Your task to perform on an android device: Empty the shopping cart on ebay. Add dell alienware to the cart on ebay, then select checkout. Image 0: 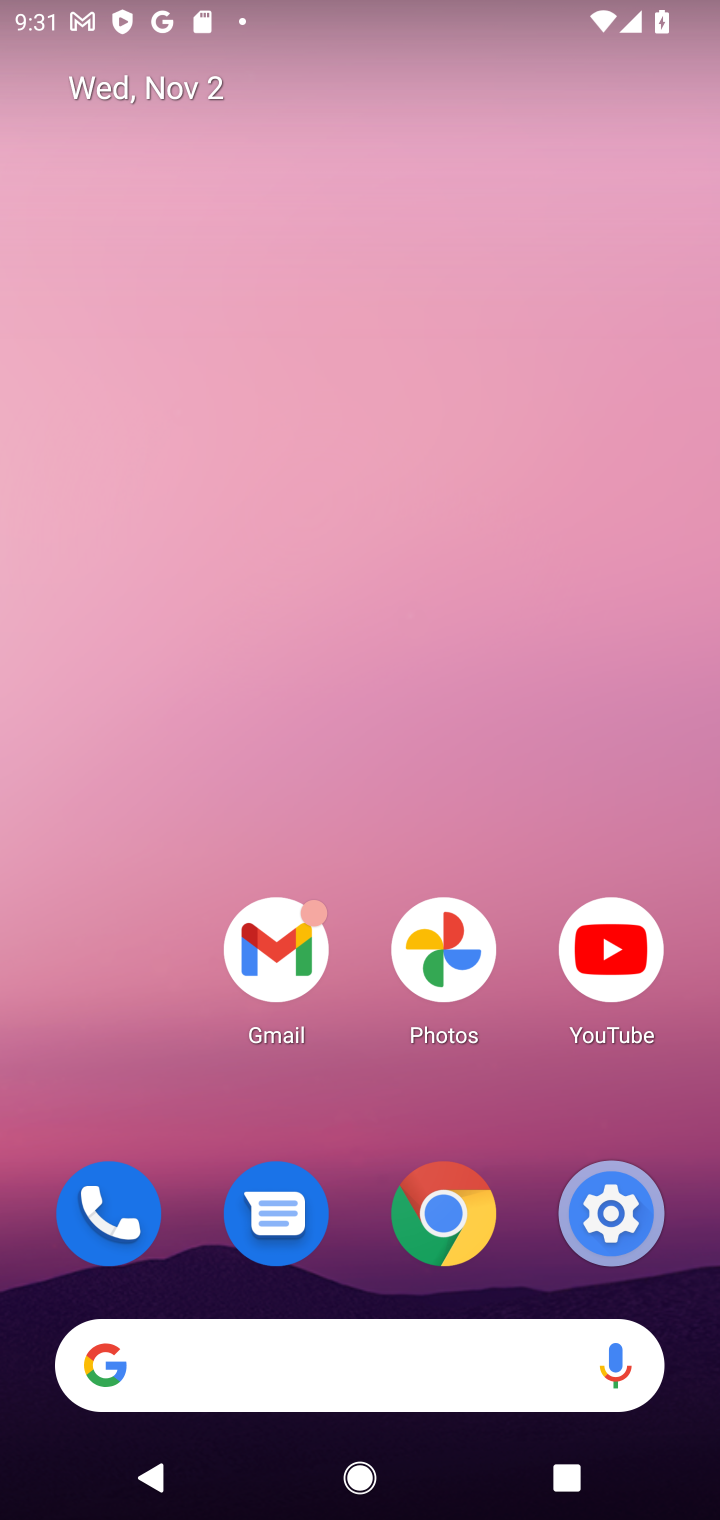
Step 0: click (452, 1234)
Your task to perform on an android device: Empty the shopping cart on ebay. Add dell alienware to the cart on ebay, then select checkout. Image 1: 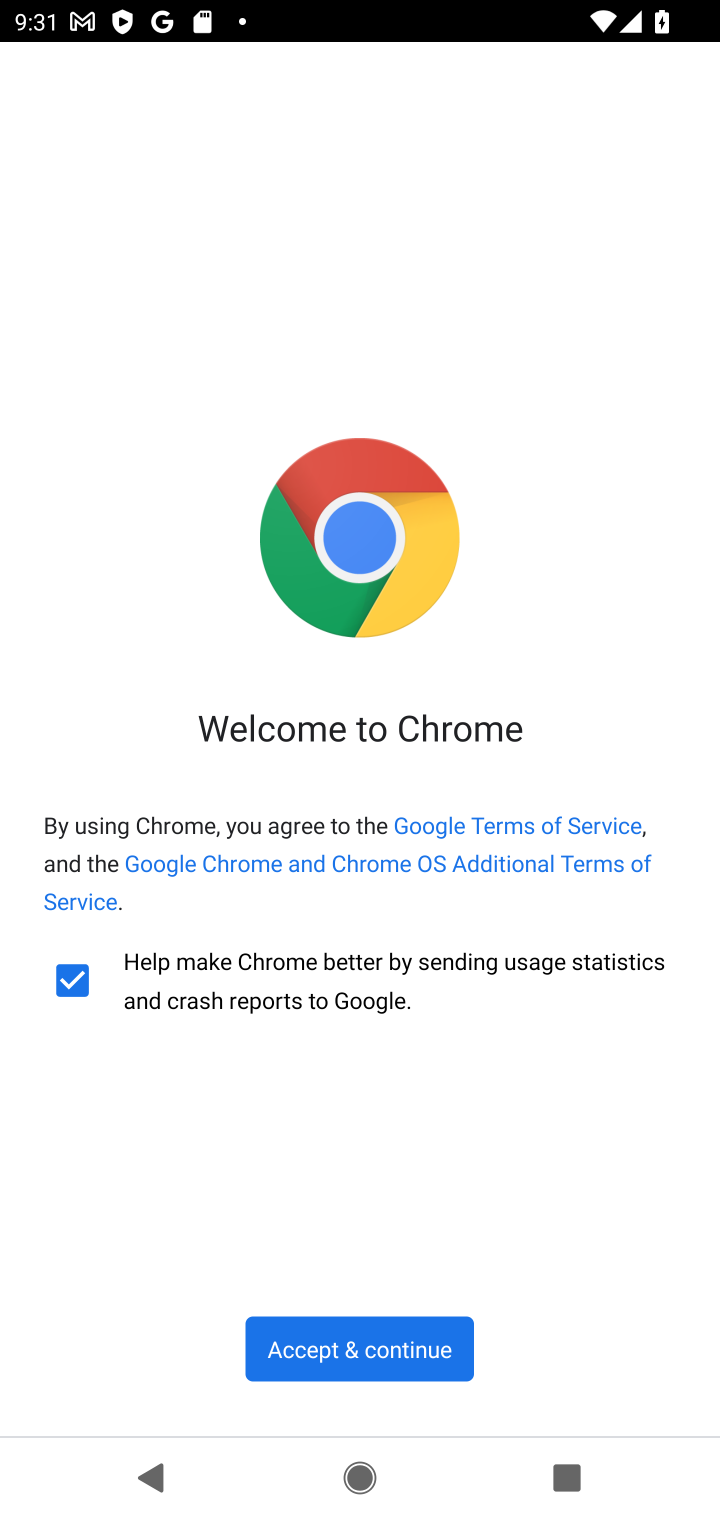
Step 1: click (358, 1316)
Your task to perform on an android device: Empty the shopping cart on ebay. Add dell alienware to the cart on ebay, then select checkout. Image 2: 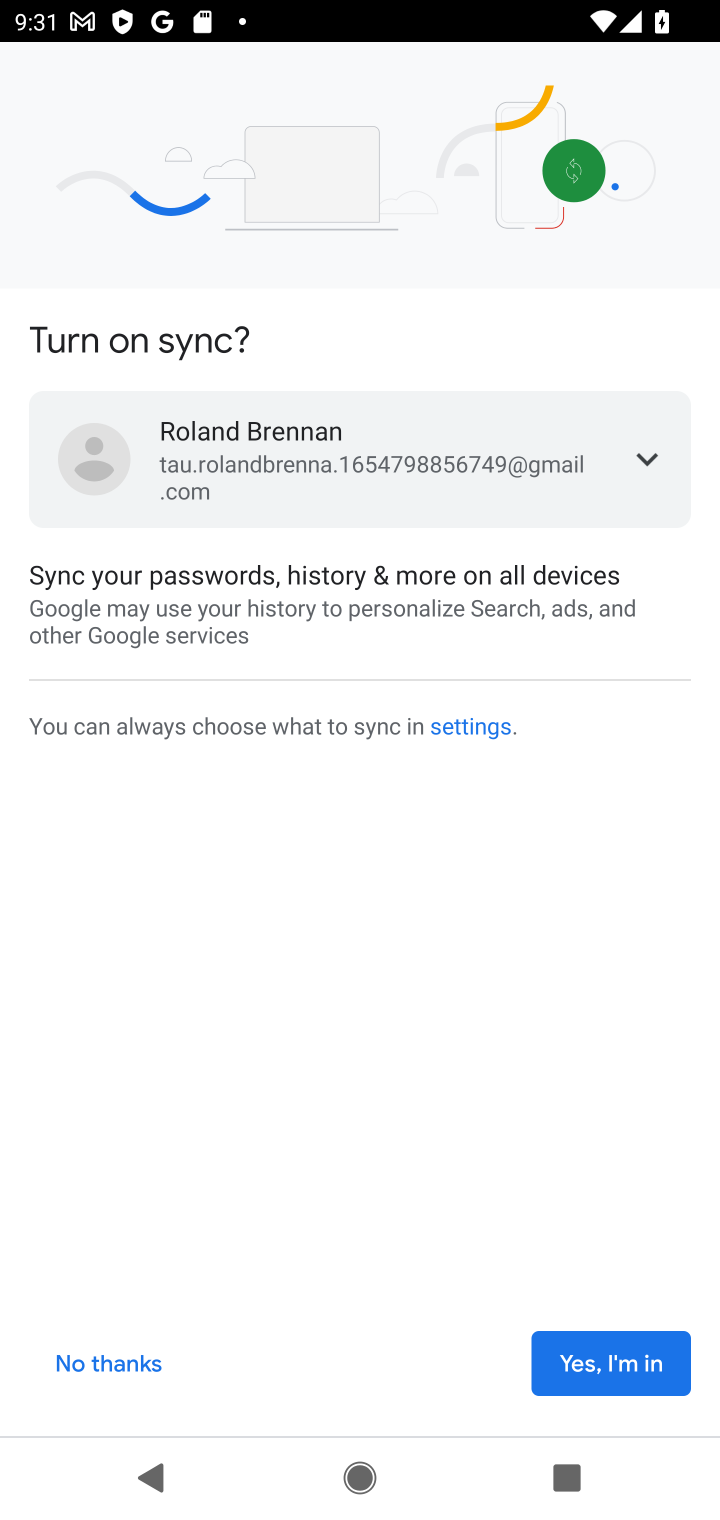
Step 2: click (541, 1362)
Your task to perform on an android device: Empty the shopping cart on ebay. Add dell alienware to the cart on ebay, then select checkout. Image 3: 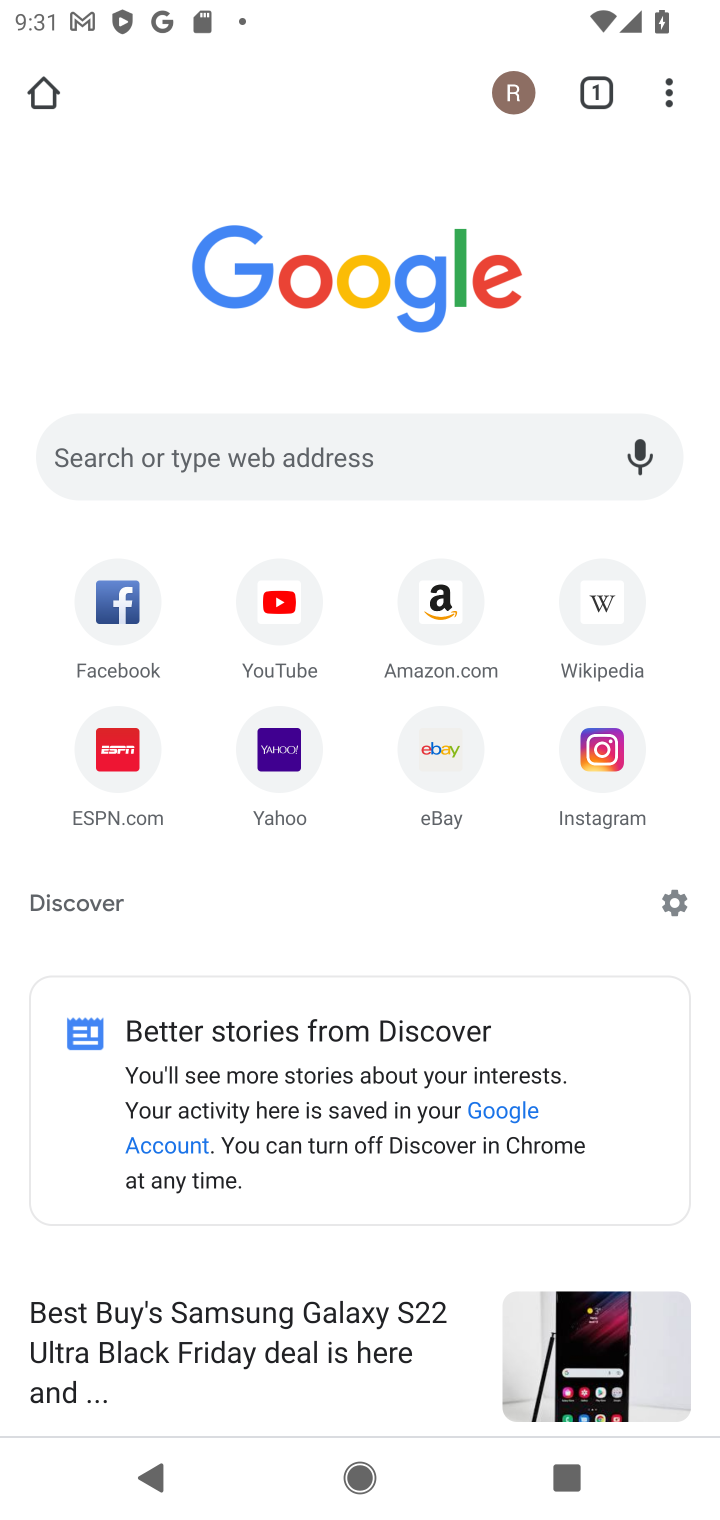
Step 3: click (189, 456)
Your task to perform on an android device: Empty the shopping cart on ebay. Add dell alienware to the cart on ebay, then select checkout. Image 4: 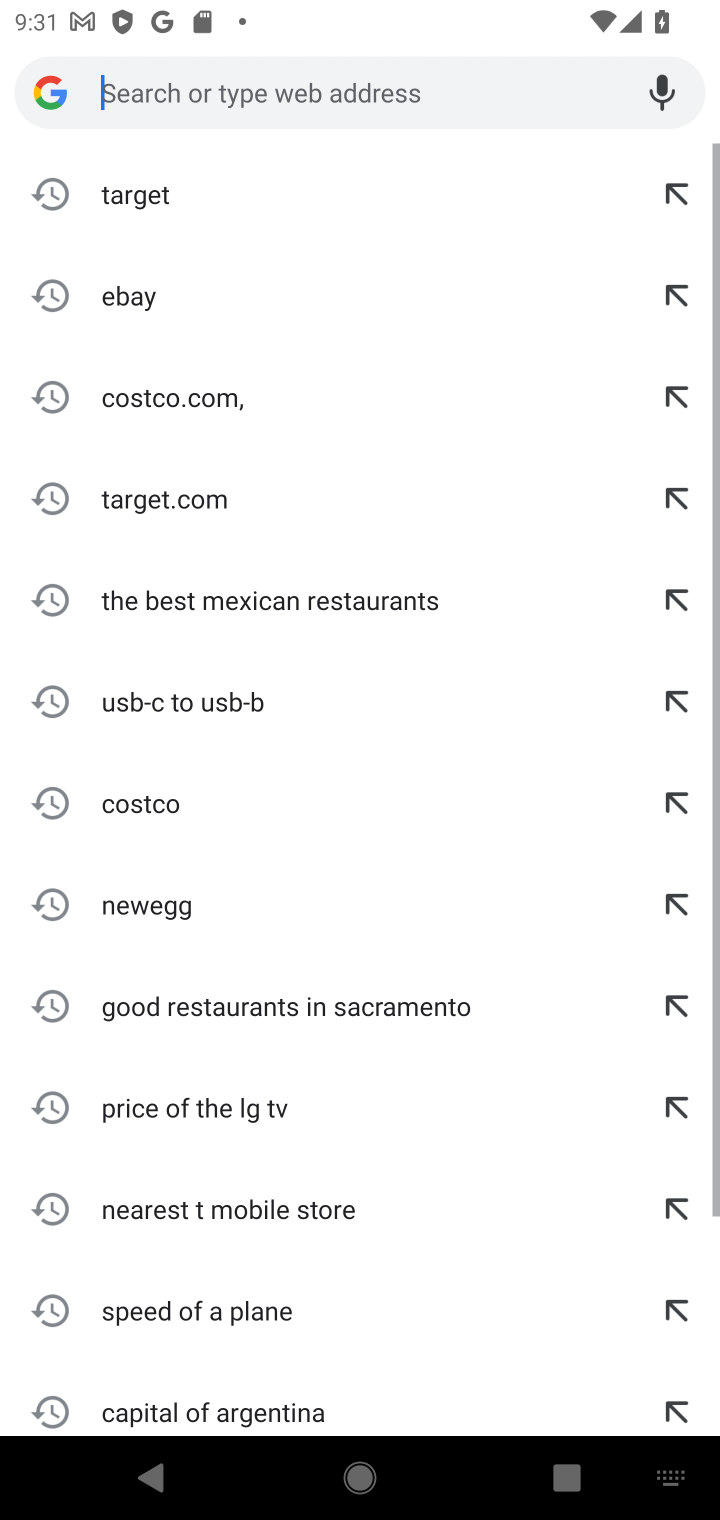
Step 4: click (133, 306)
Your task to perform on an android device: Empty the shopping cart on ebay. Add dell alienware to the cart on ebay, then select checkout. Image 5: 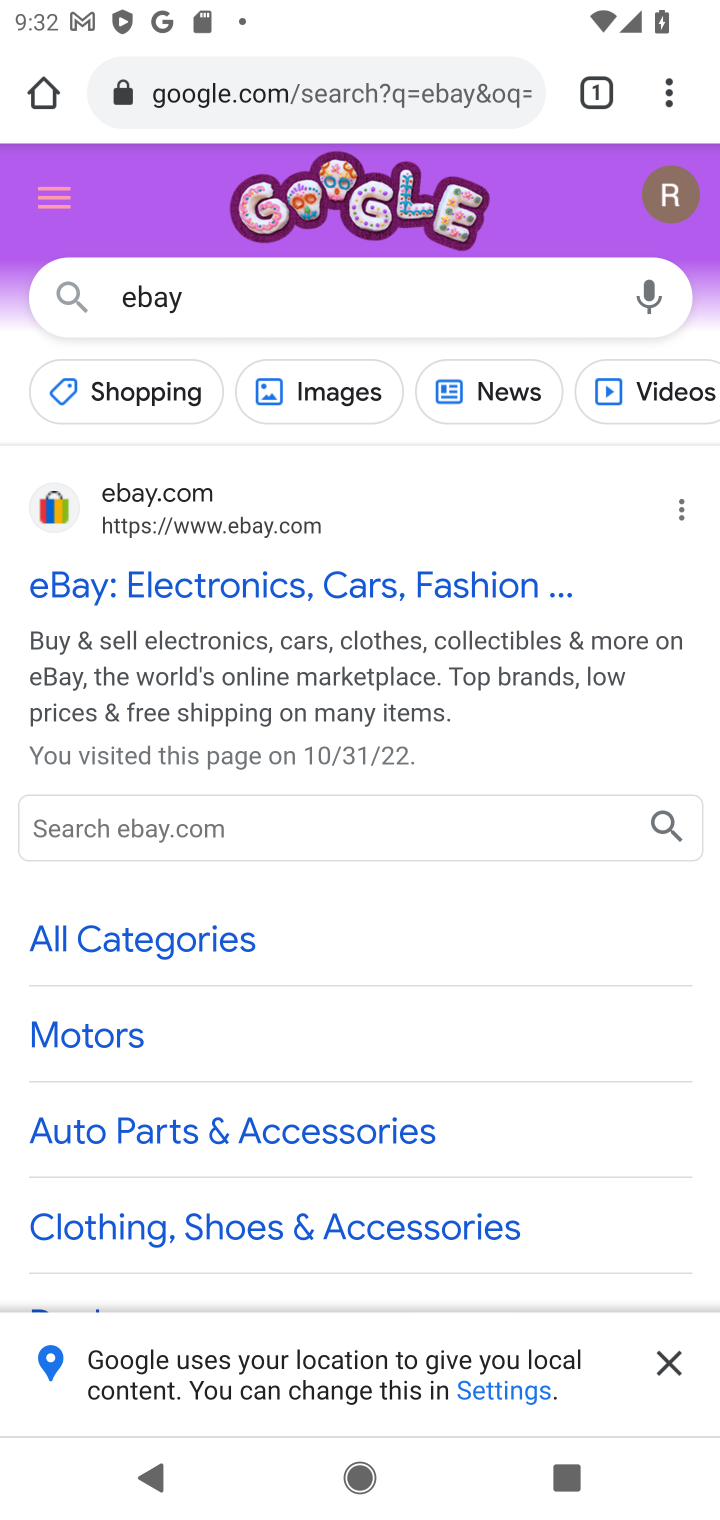
Step 5: click (668, 1372)
Your task to perform on an android device: Empty the shopping cart on ebay. Add dell alienware to the cart on ebay, then select checkout. Image 6: 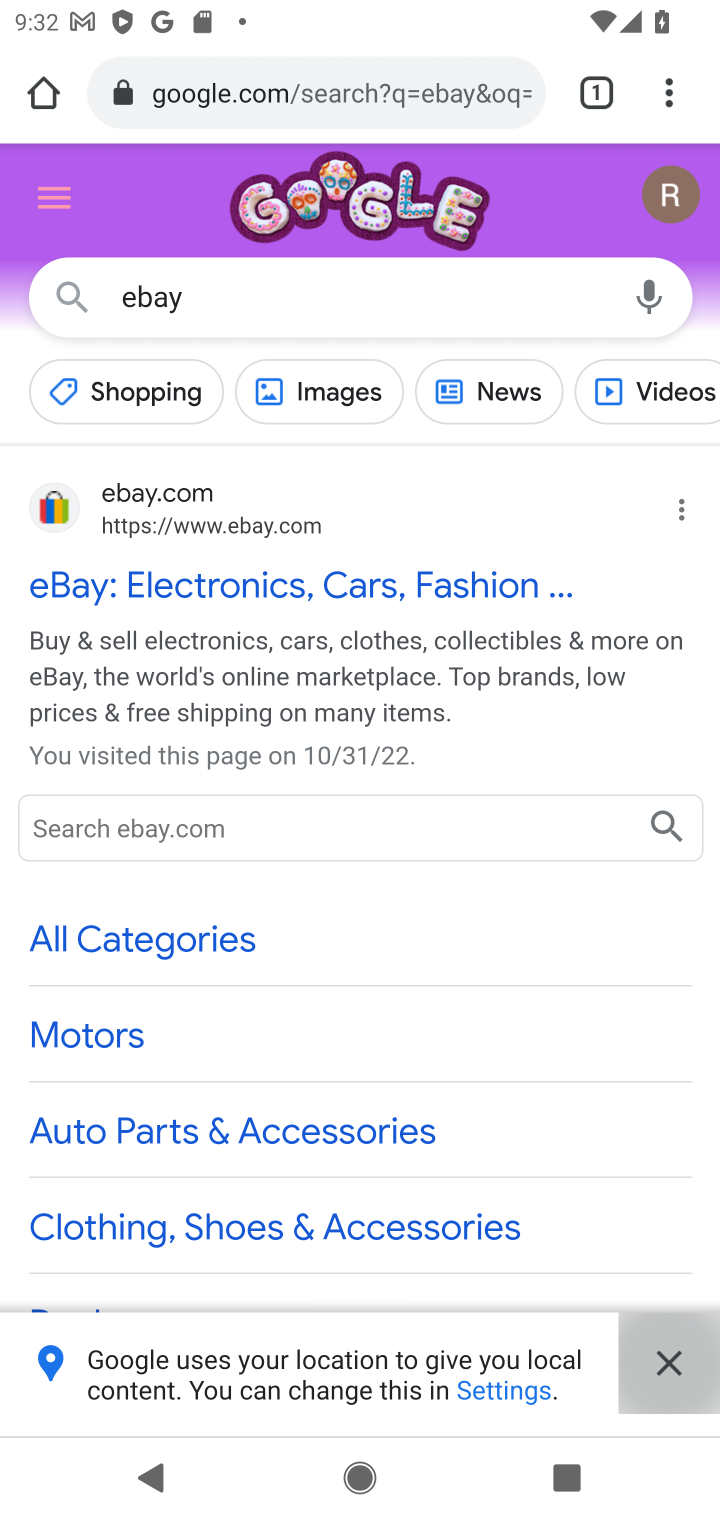
Step 6: click (117, 615)
Your task to perform on an android device: Empty the shopping cart on ebay. Add dell alienware to the cart on ebay, then select checkout. Image 7: 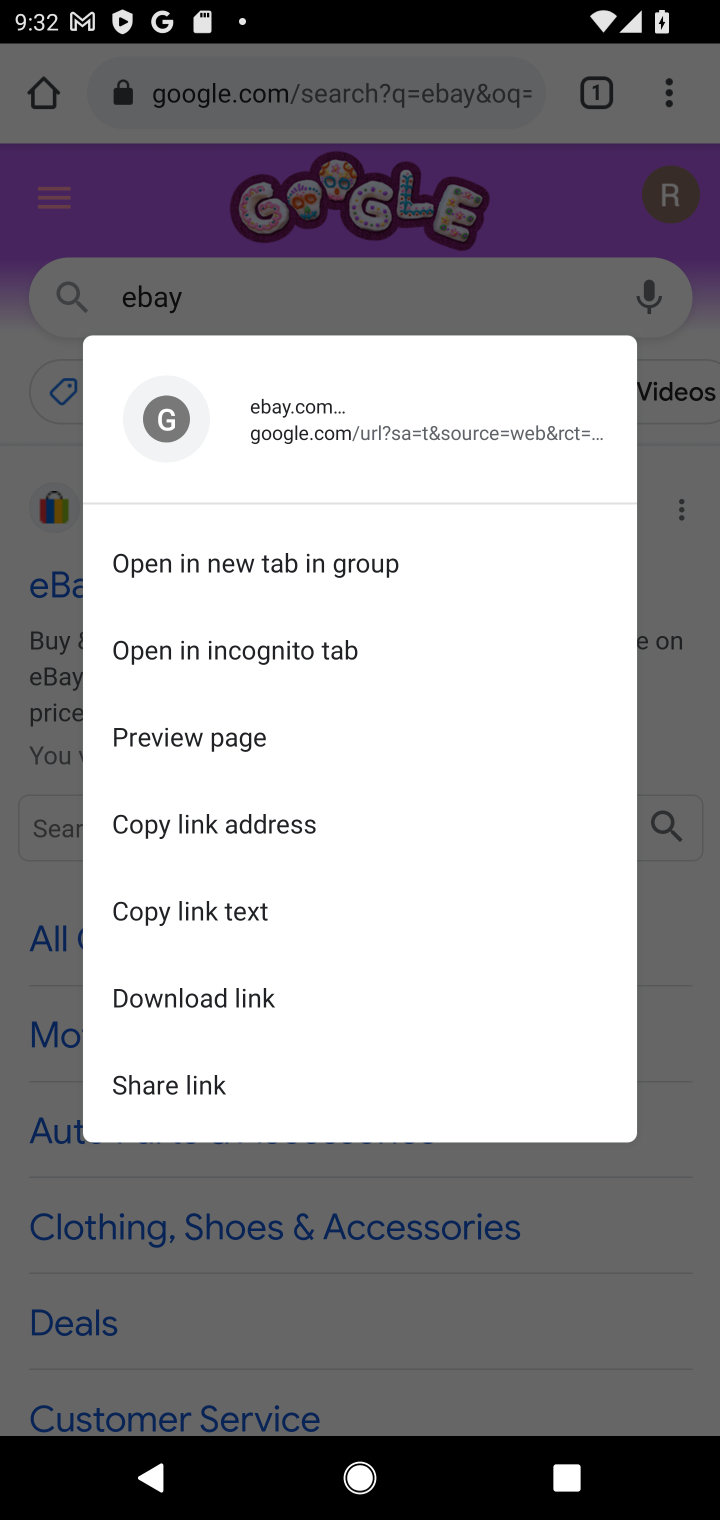
Step 7: click (662, 652)
Your task to perform on an android device: Empty the shopping cart on ebay. Add dell alienware to the cart on ebay, then select checkout. Image 8: 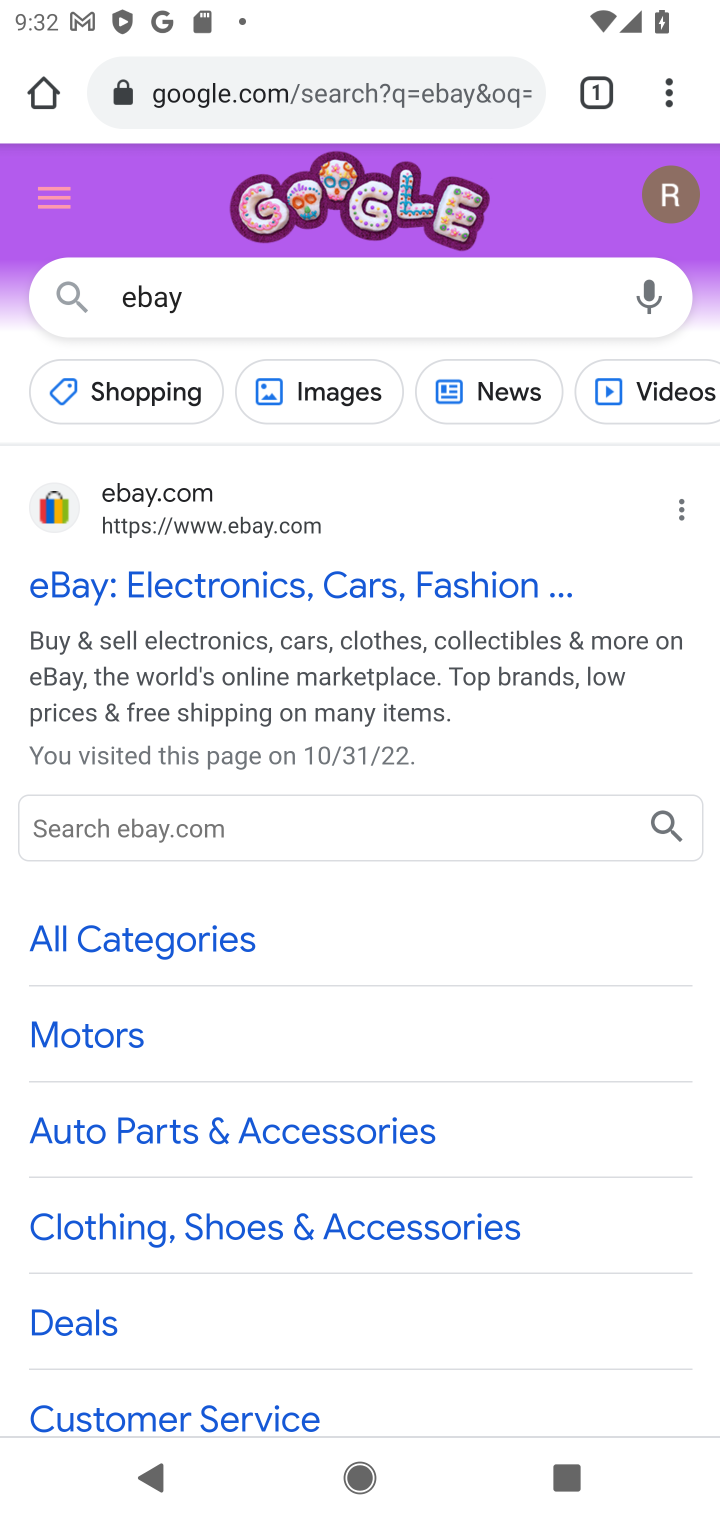
Step 8: click (465, 596)
Your task to perform on an android device: Empty the shopping cart on ebay. Add dell alienware to the cart on ebay, then select checkout. Image 9: 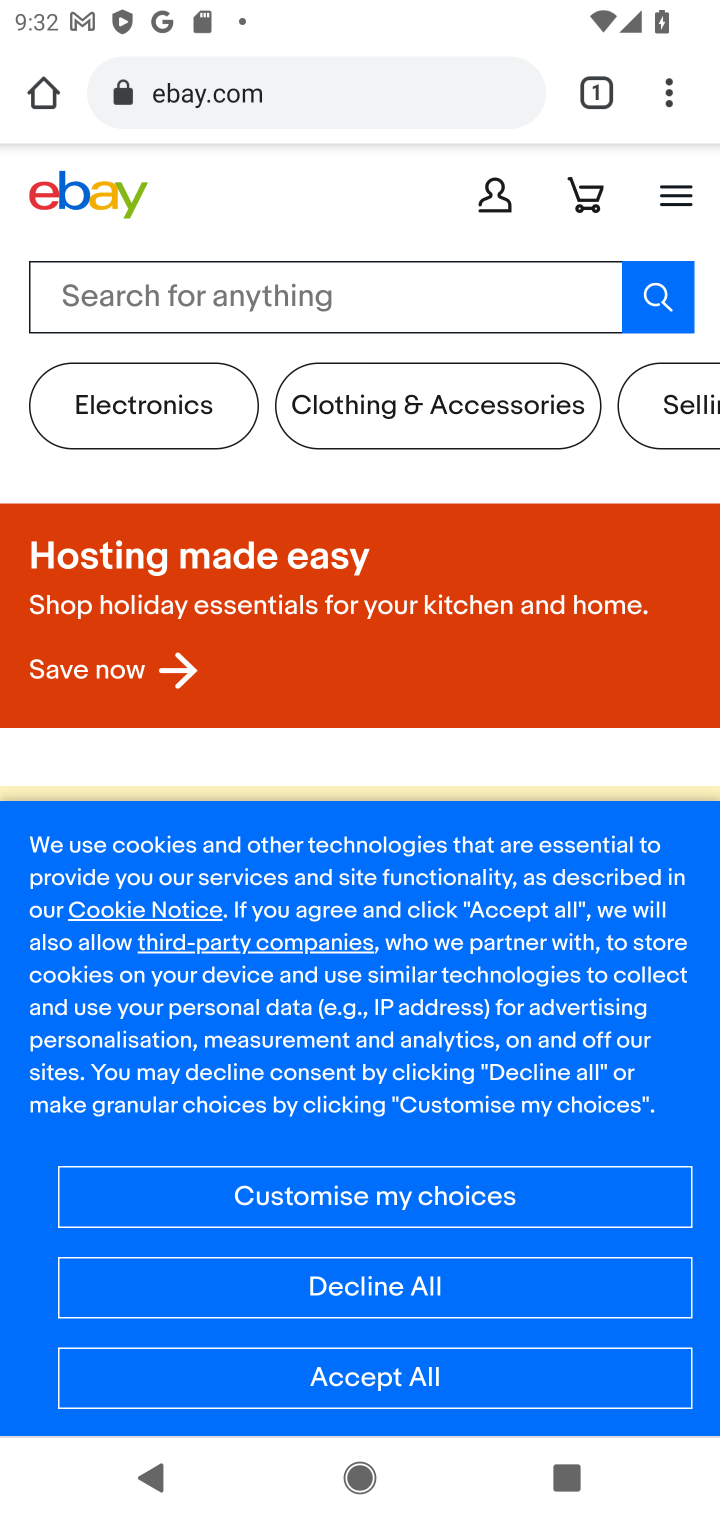
Step 9: click (494, 1385)
Your task to perform on an android device: Empty the shopping cart on ebay. Add dell alienware to the cart on ebay, then select checkout. Image 10: 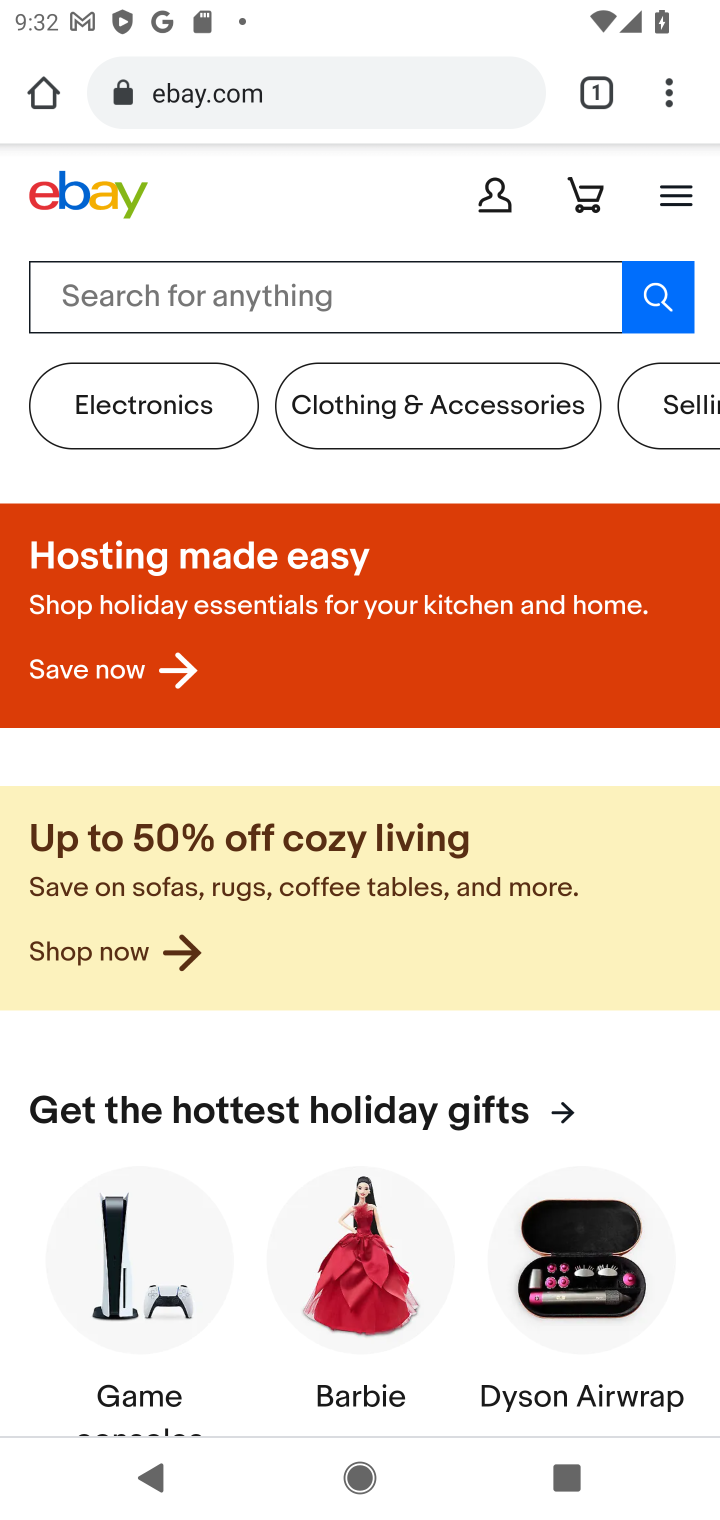
Step 10: click (207, 315)
Your task to perform on an android device: Empty the shopping cart on ebay. Add dell alienware to the cart on ebay, then select checkout. Image 11: 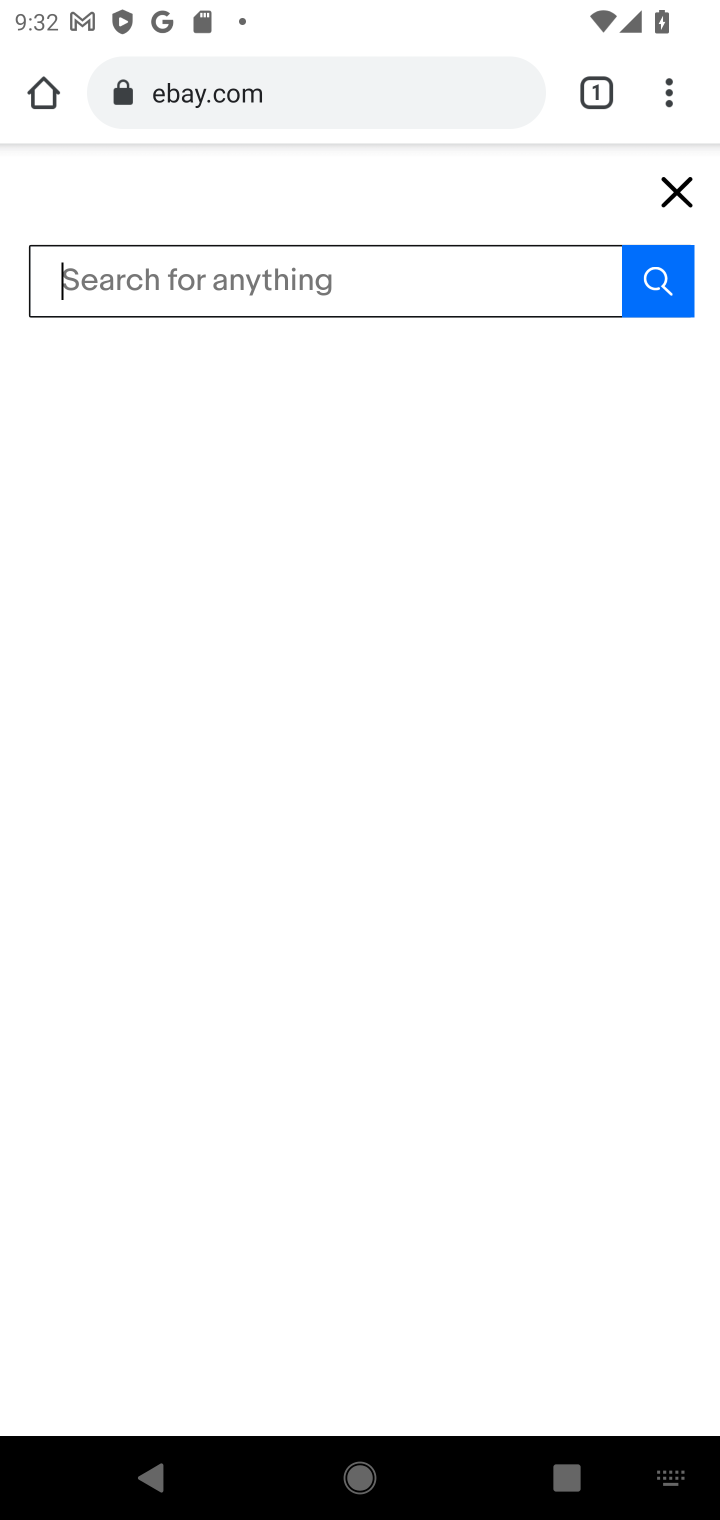
Step 11: type "dell alienware"
Your task to perform on an android device: Empty the shopping cart on ebay. Add dell alienware to the cart on ebay, then select checkout. Image 12: 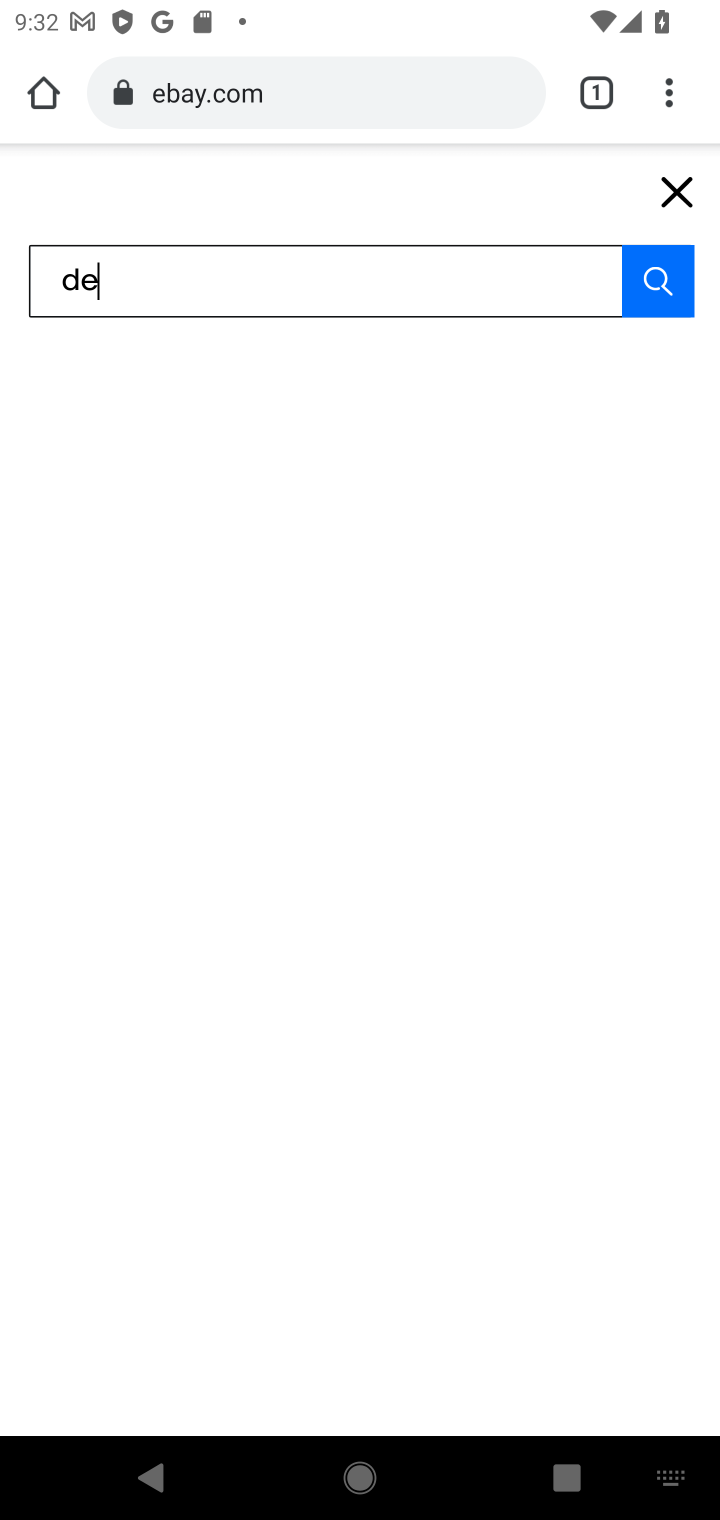
Step 12: type ""
Your task to perform on an android device: Empty the shopping cart on ebay. Add dell alienware to the cart on ebay, then select checkout. Image 13: 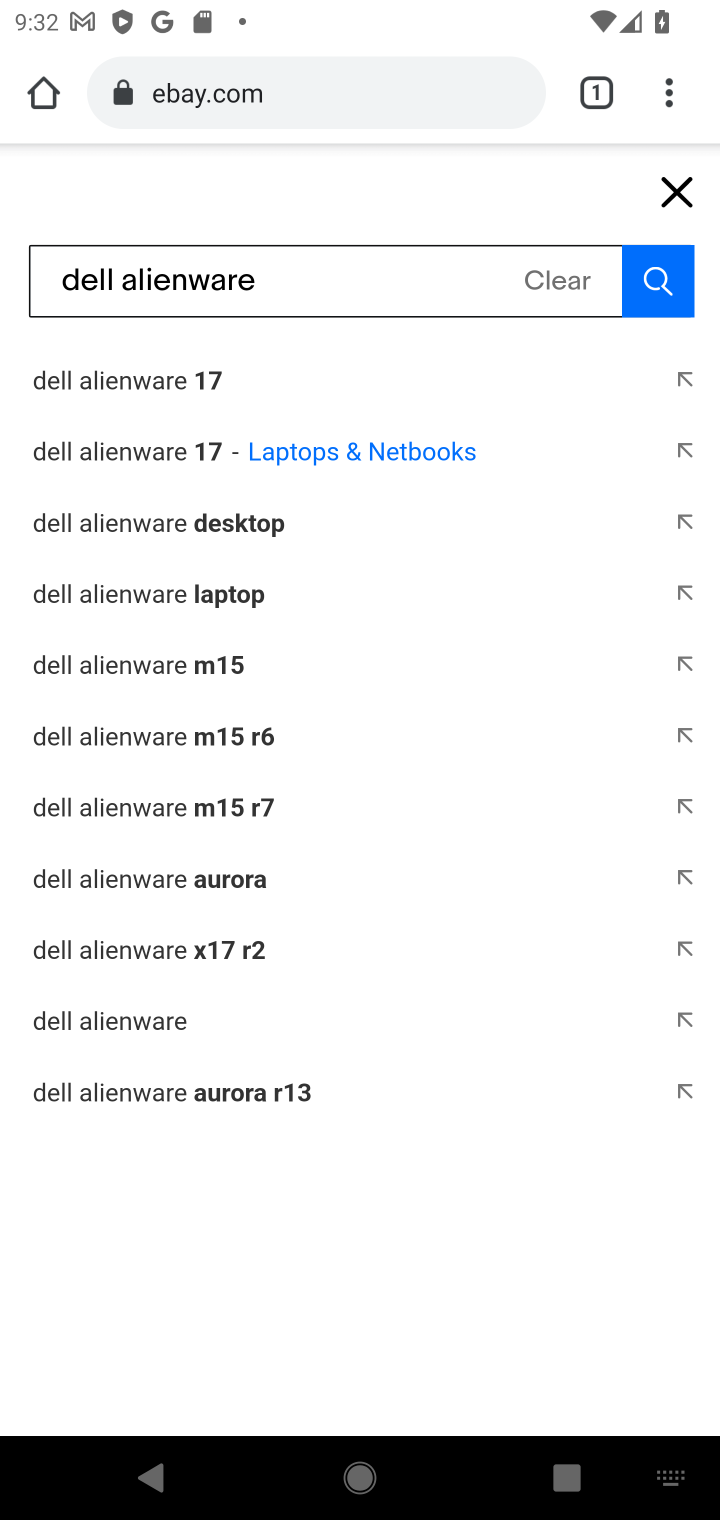
Step 13: click (678, 270)
Your task to perform on an android device: Empty the shopping cart on ebay. Add dell alienware to the cart on ebay, then select checkout. Image 14: 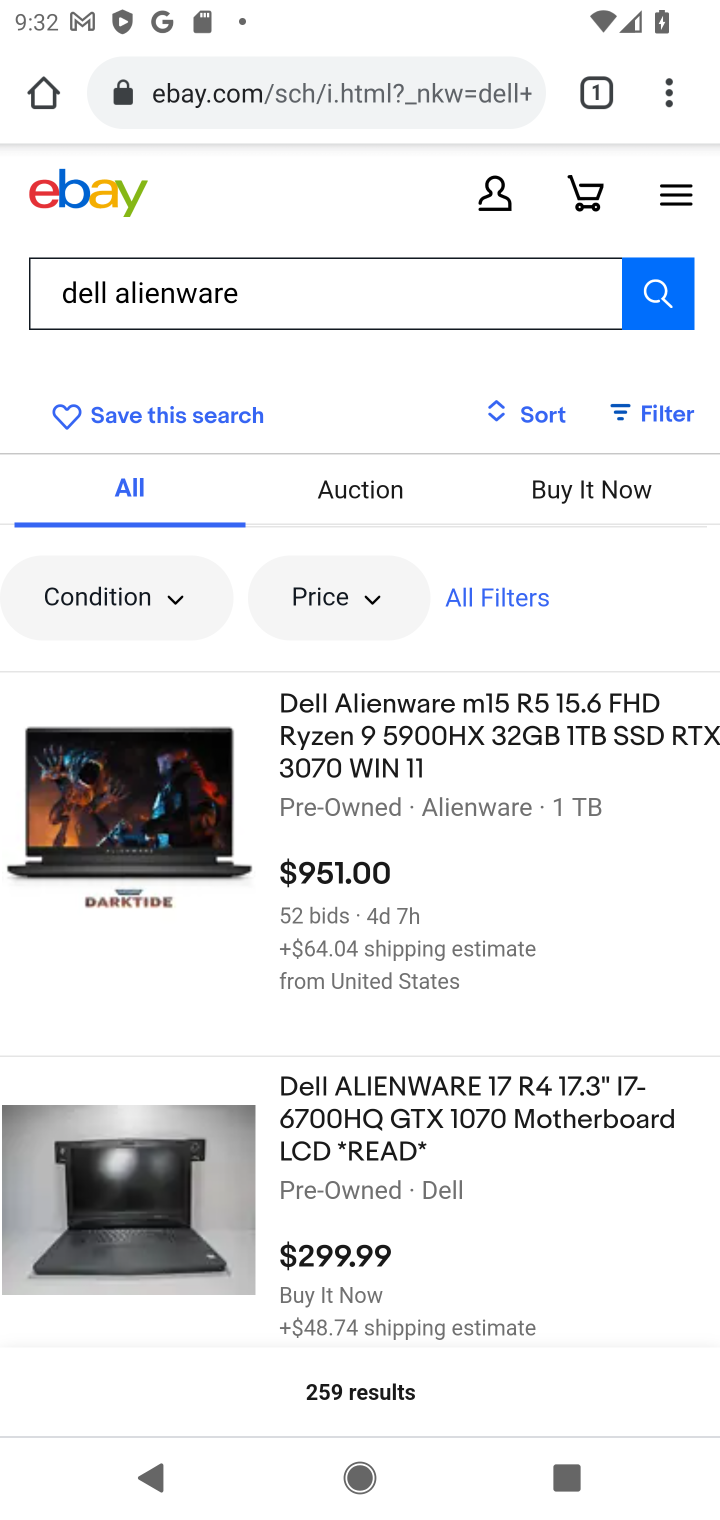
Step 14: click (659, 300)
Your task to perform on an android device: Empty the shopping cart on ebay. Add dell alienware to the cart on ebay, then select checkout. Image 15: 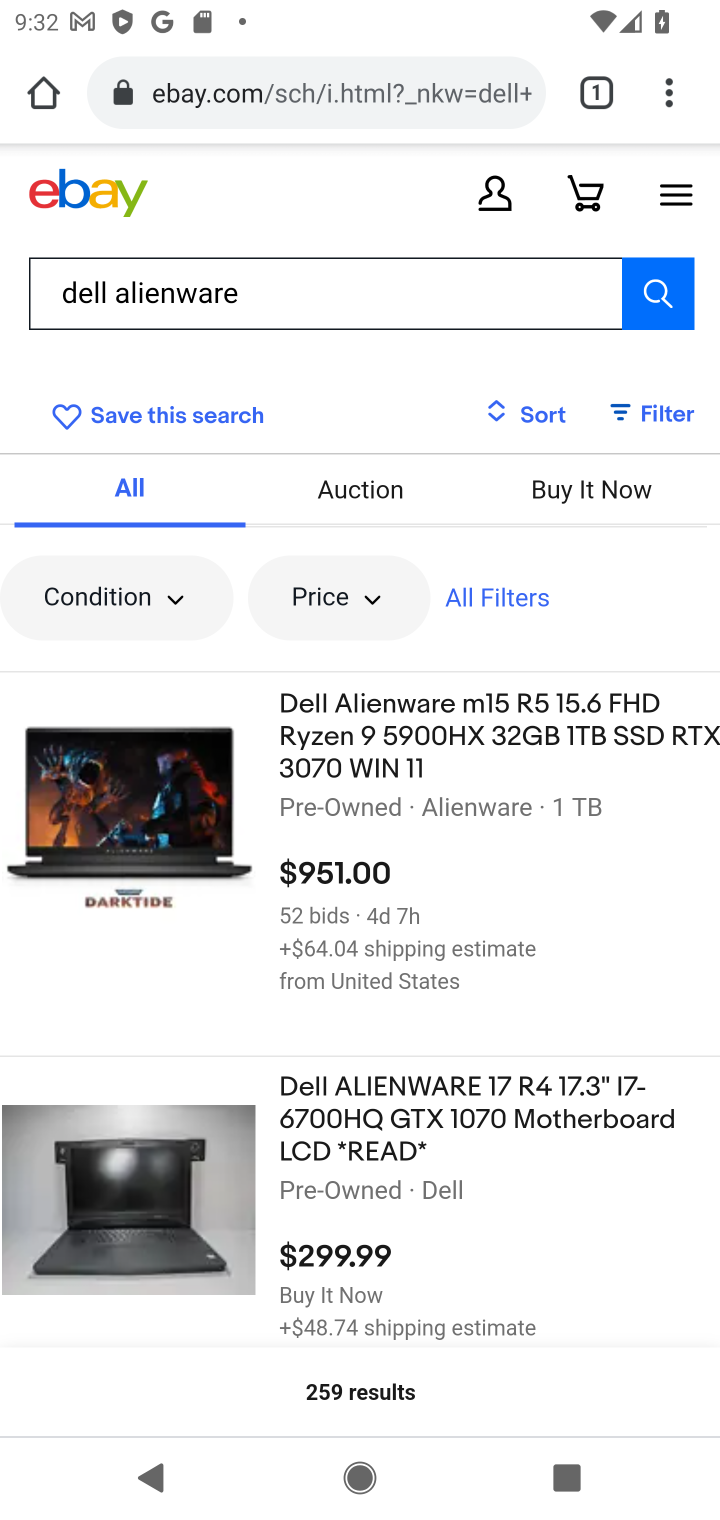
Step 15: click (458, 690)
Your task to perform on an android device: Empty the shopping cart on ebay. Add dell alienware to the cart on ebay, then select checkout. Image 16: 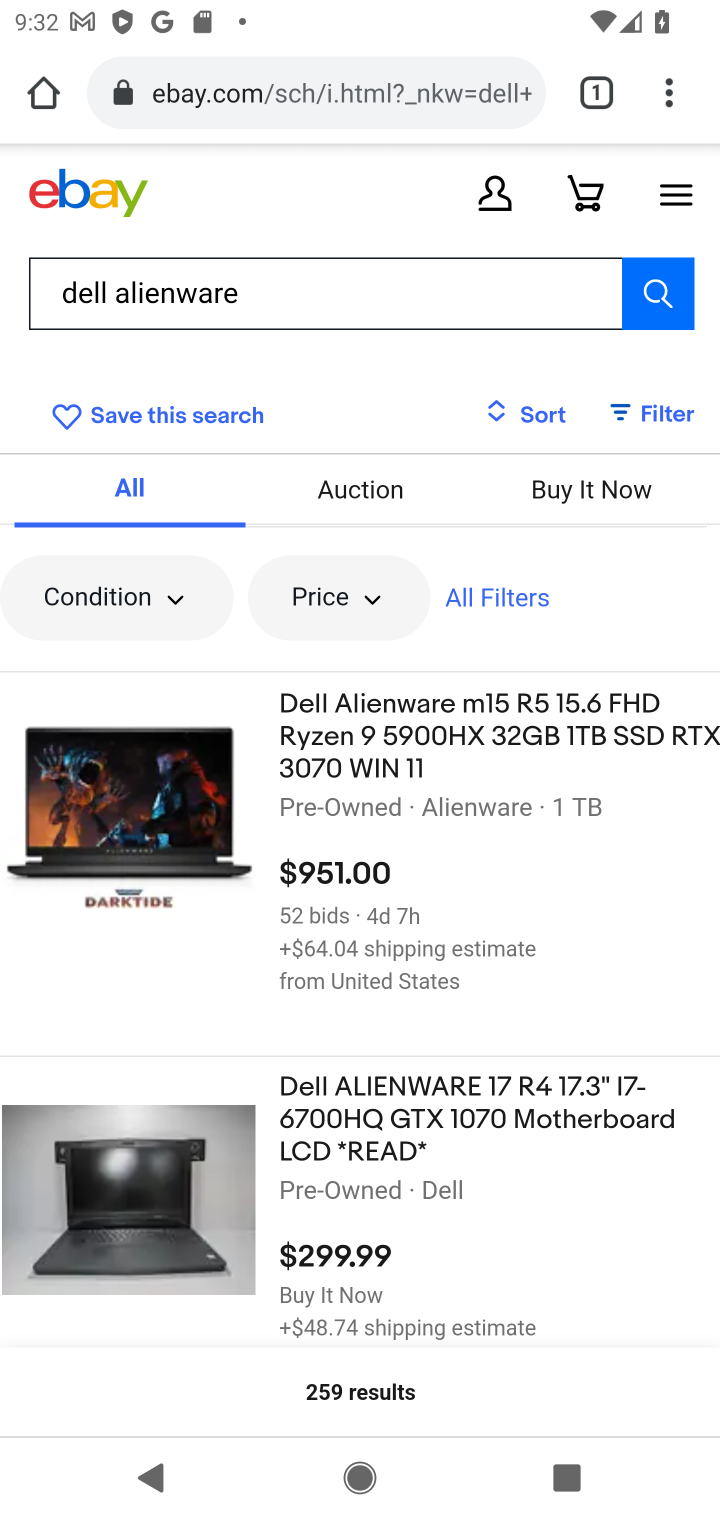
Step 16: click (423, 752)
Your task to perform on an android device: Empty the shopping cart on ebay. Add dell alienware to the cart on ebay, then select checkout. Image 17: 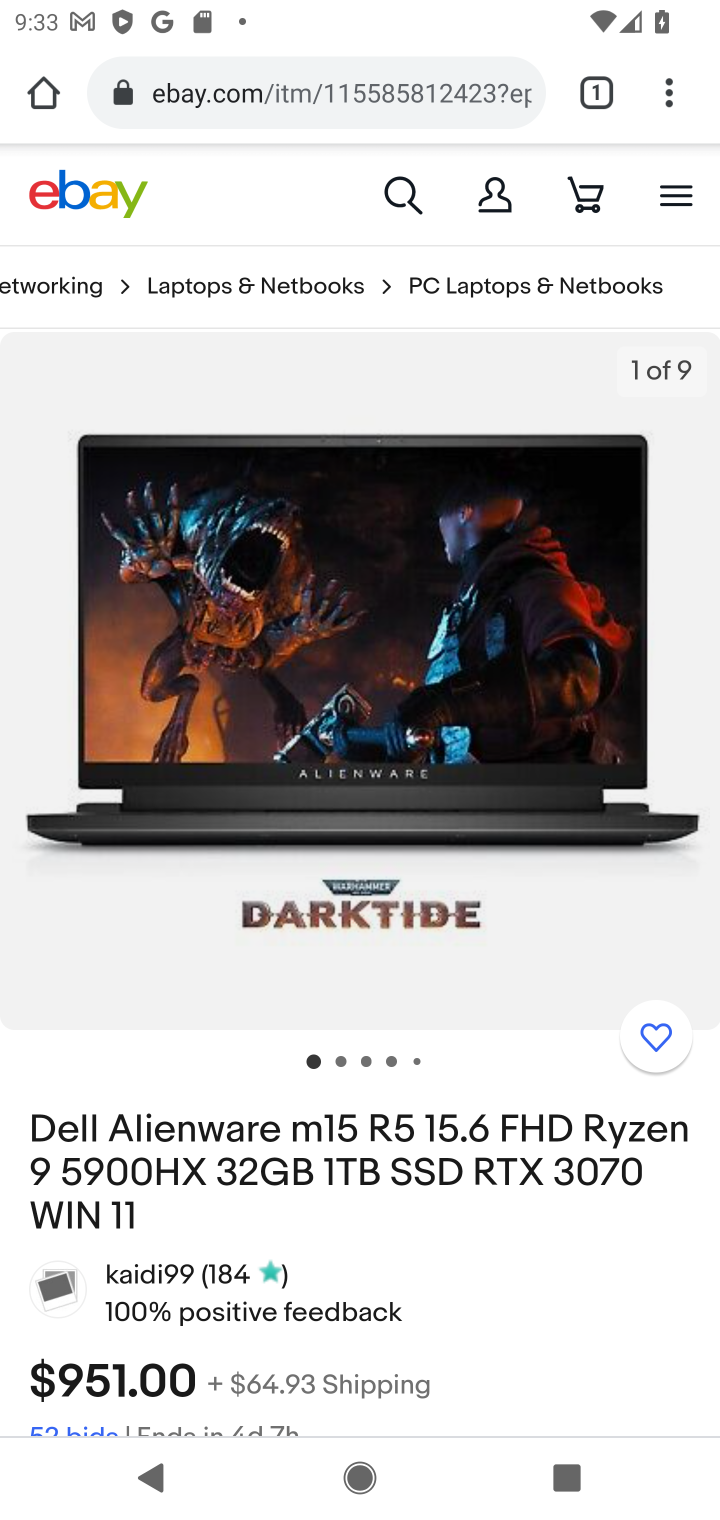
Step 17: drag from (477, 906) to (523, 344)
Your task to perform on an android device: Empty the shopping cart on ebay. Add dell alienware to the cart on ebay, then select checkout. Image 18: 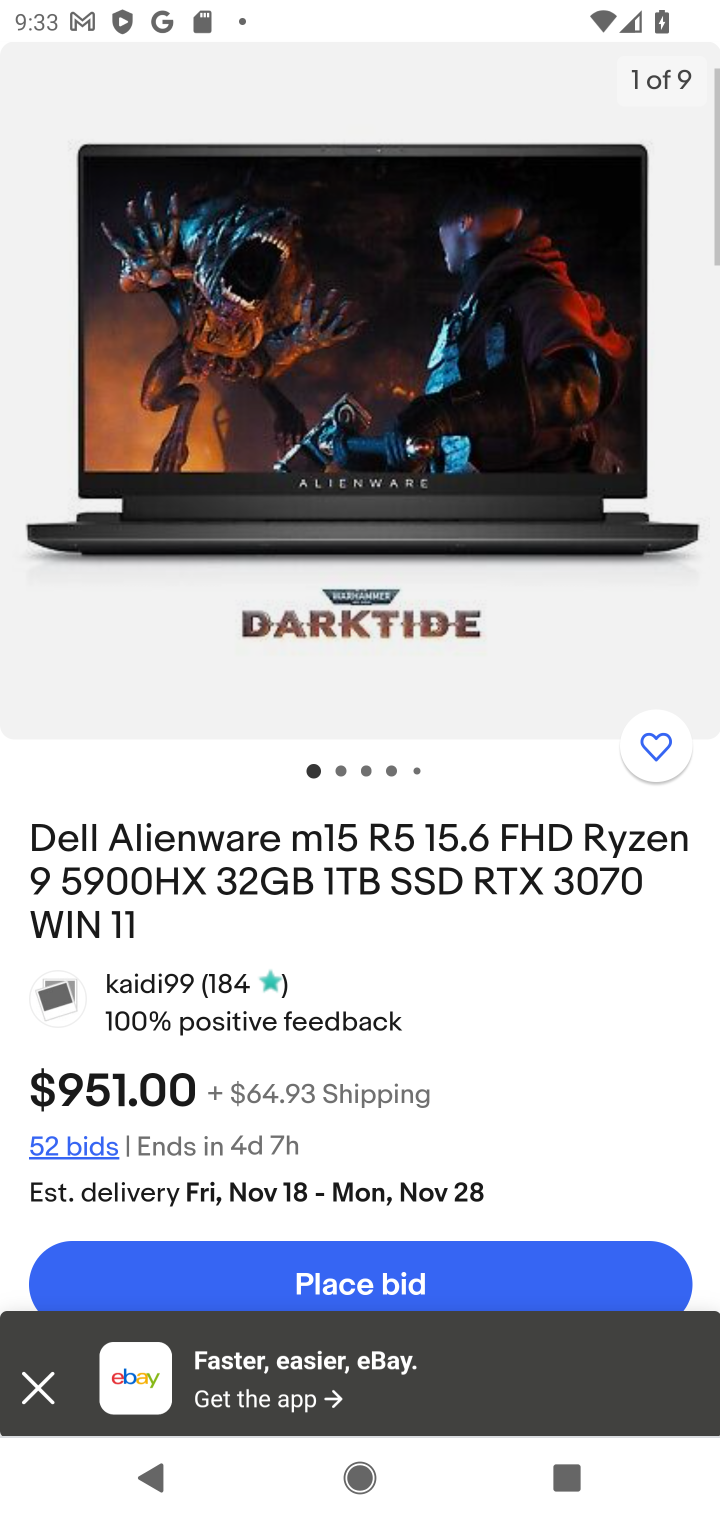
Step 18: drag from (446, 826) to (474, 647)
Your task to perform on an android device: Empty the shopping cart on ebay. Add dell alienware to the cart on ebay, then select checkout. Image 19: 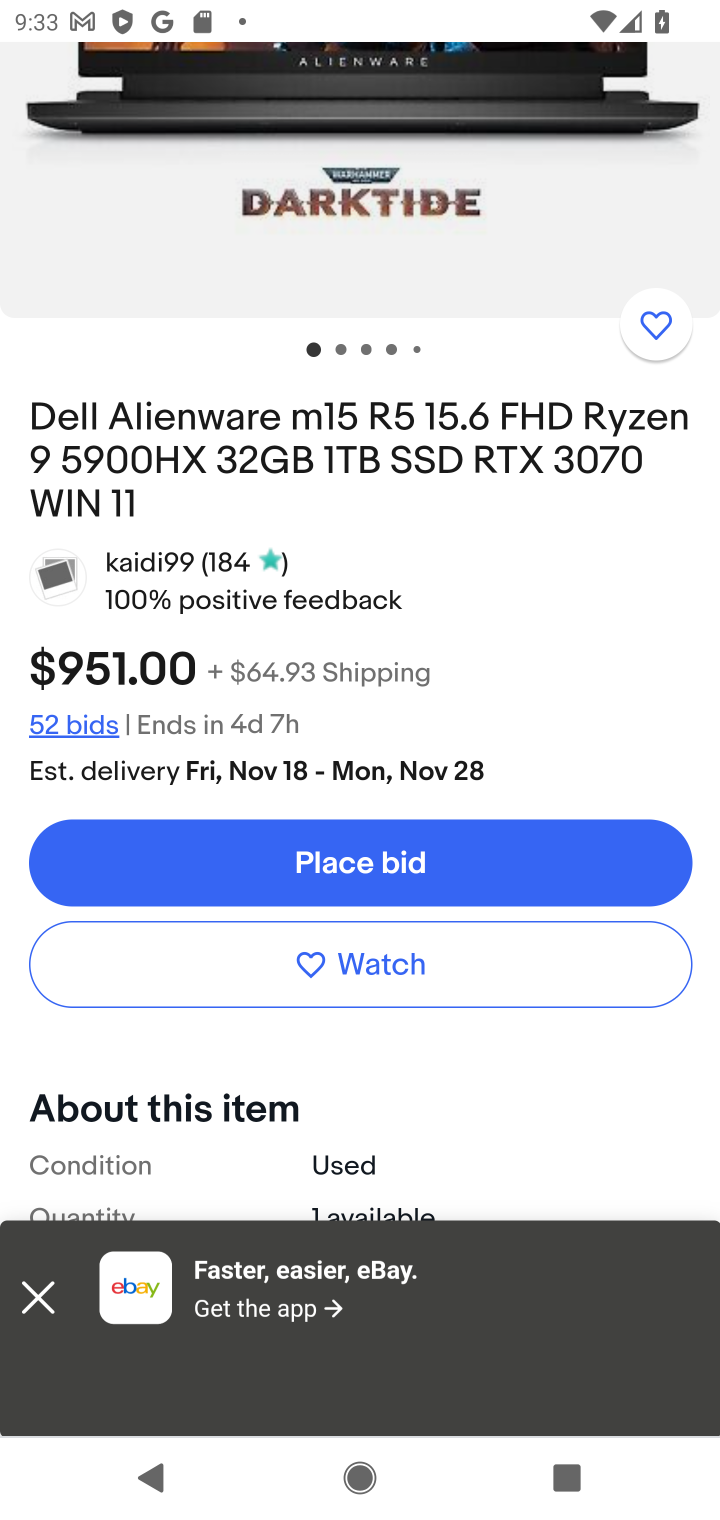
Step 19: click (25, 1423)
Your task to perform on an android device: Empty the shopping cart on ebay. Add dell alienware to the cart on ebay, then select checkout. Image 20: 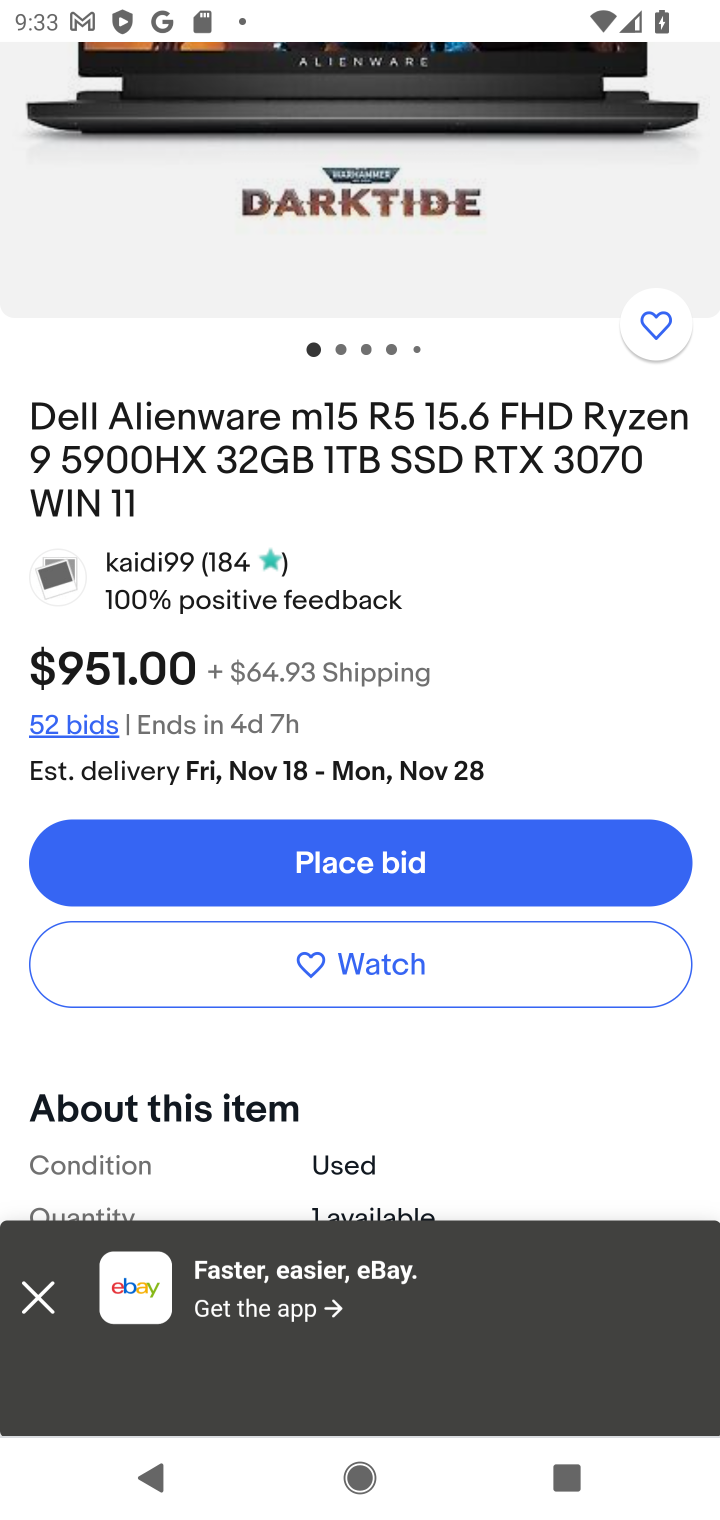
Step 20: click (36, 1323)
Your task to perform on an android device: Empty the shopping cart on ebay. Add dell alienware to the cart on ebay, then select checkout. Image 21: 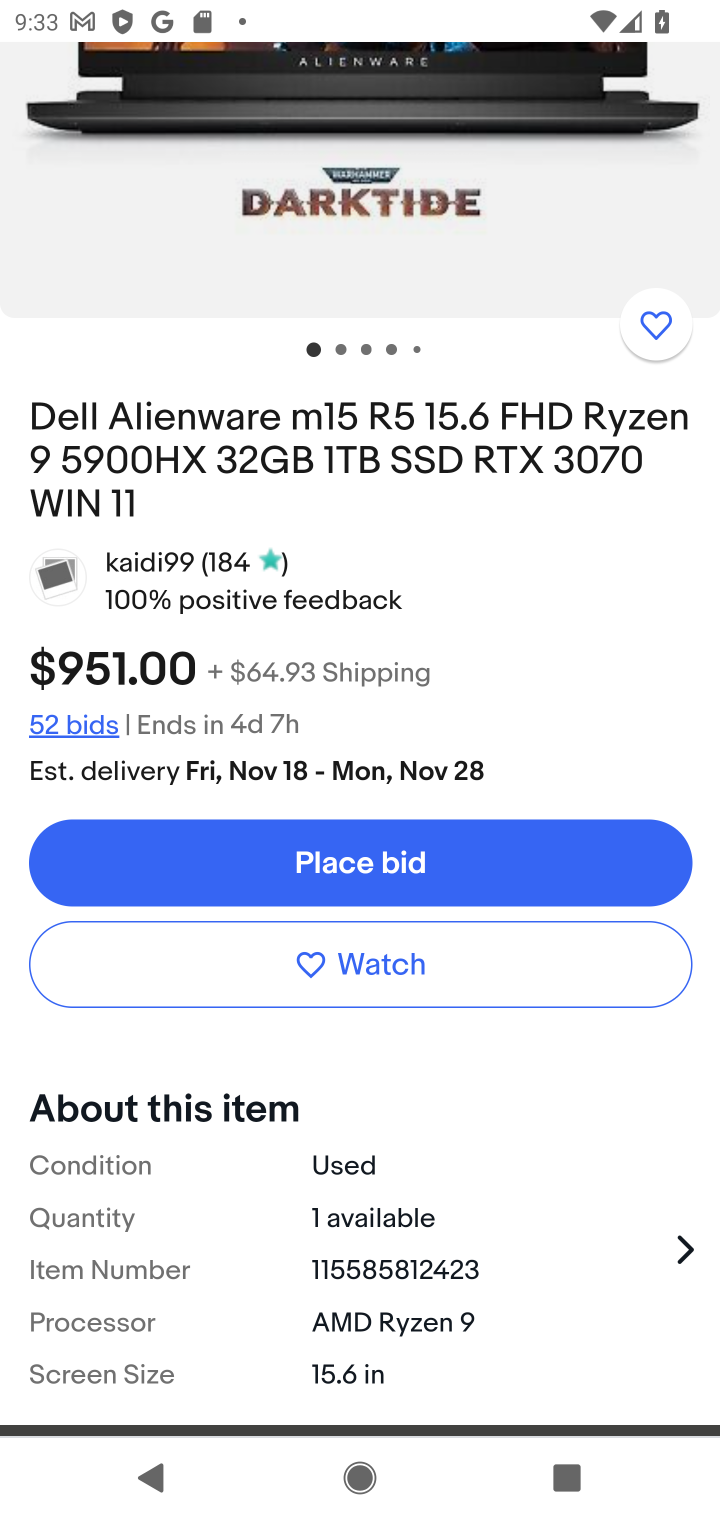
Step 21: press back button
Your task to perform on an android device: Empty the shopping cart on ebay. Add dell alienware to the cart on ebay, then select checkout. Image 22: 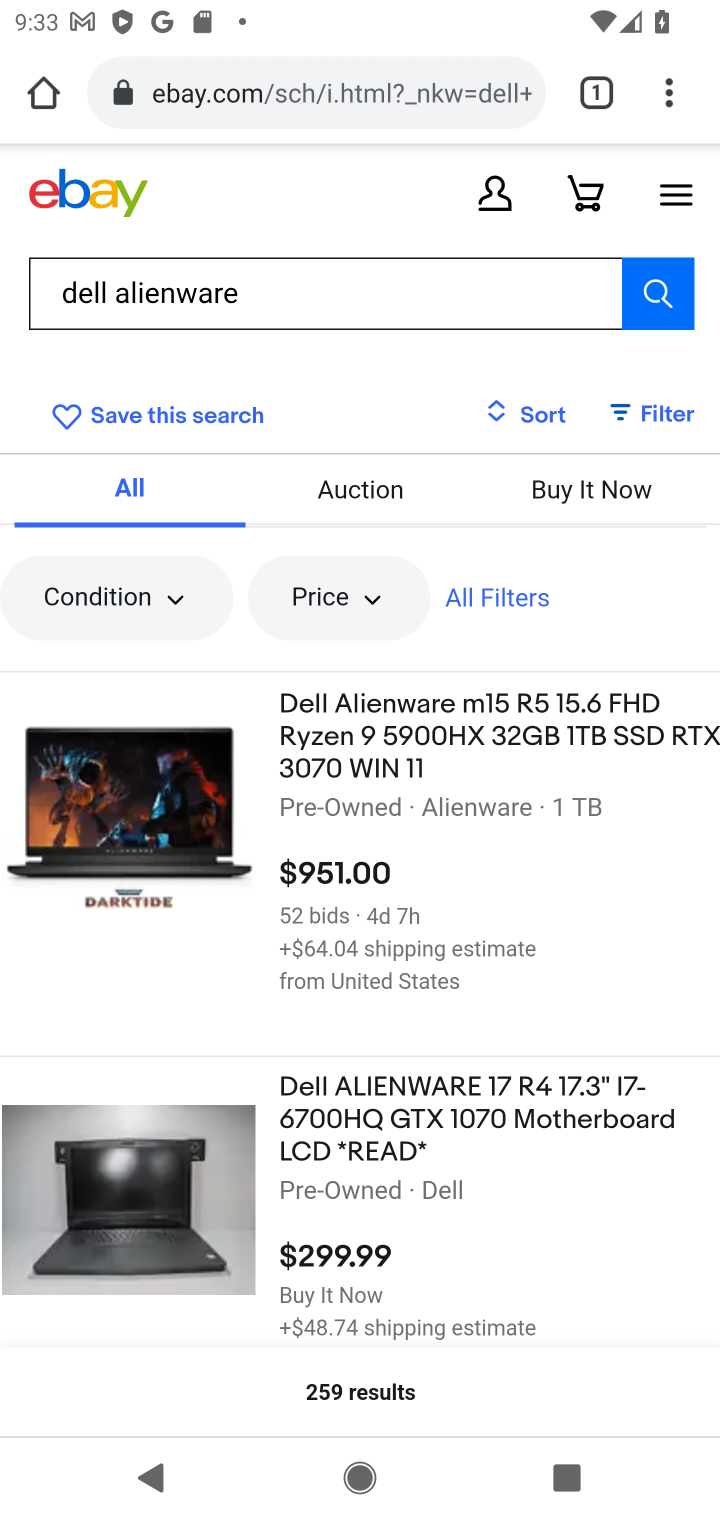
Step 22: click (412, 1147)
Your task to perform on an android device: Empty the shopping cart on ebay. Add dell alienware to the cart on ebay, then select checkout. Image 23: 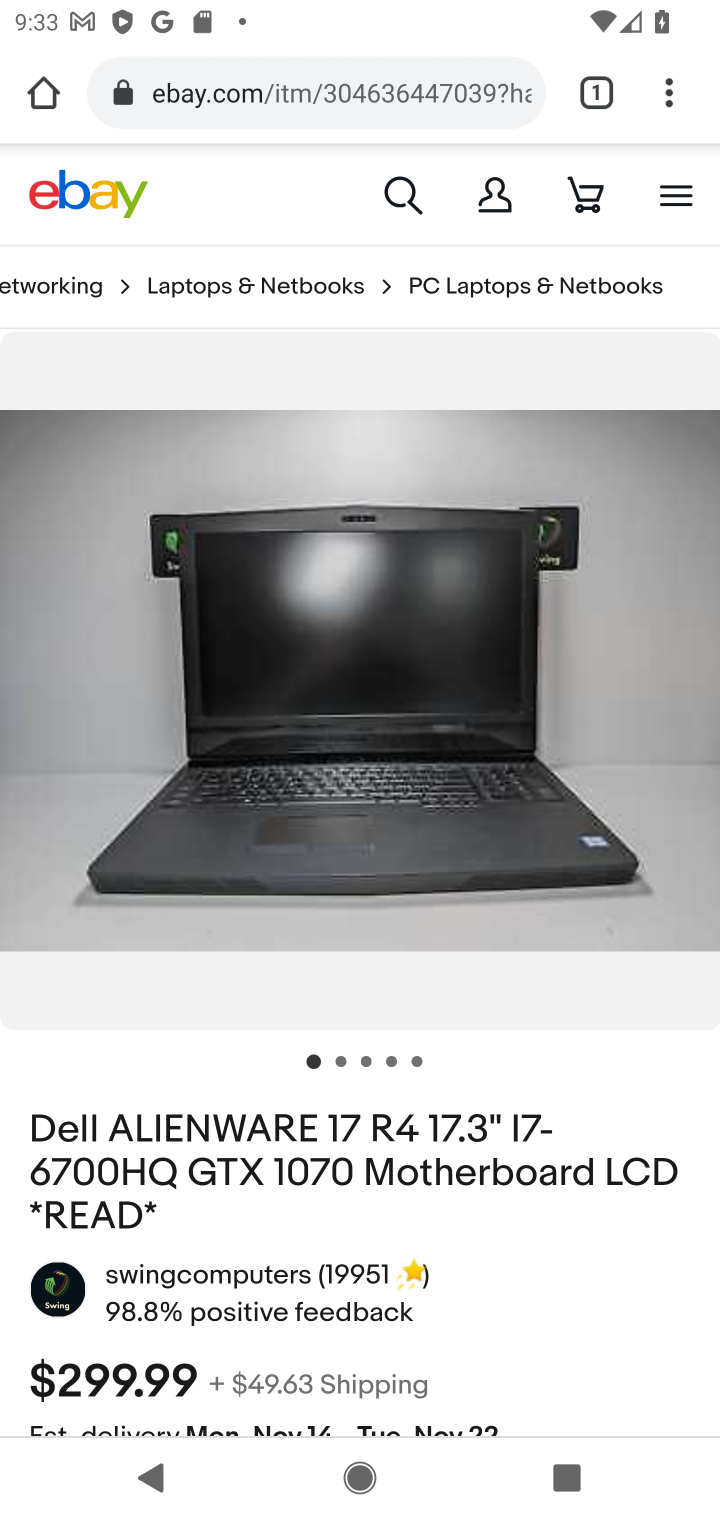
Step 23: drag from (408, 1220) to (513, 323)
Your task to perform on an android device: Empty the shopping cart on ebay. Add dell alienware to the cart on ebay, then select checkout. Image 24: 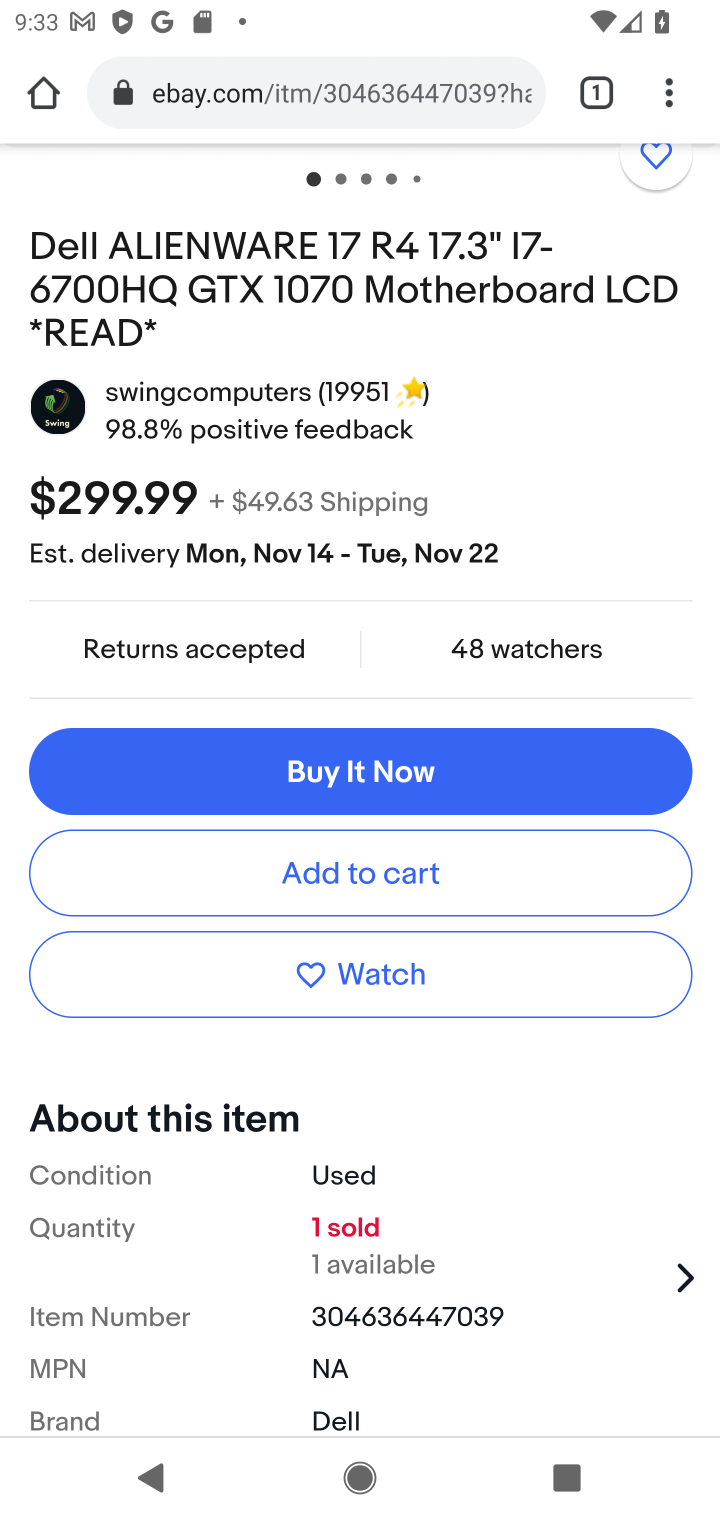
Step 24: click (358, 878)
Your task to perform on an android device: Empty the shopping cart on ebay. Add dell alienware to the cart on ebay, then select checkout. Image 25: 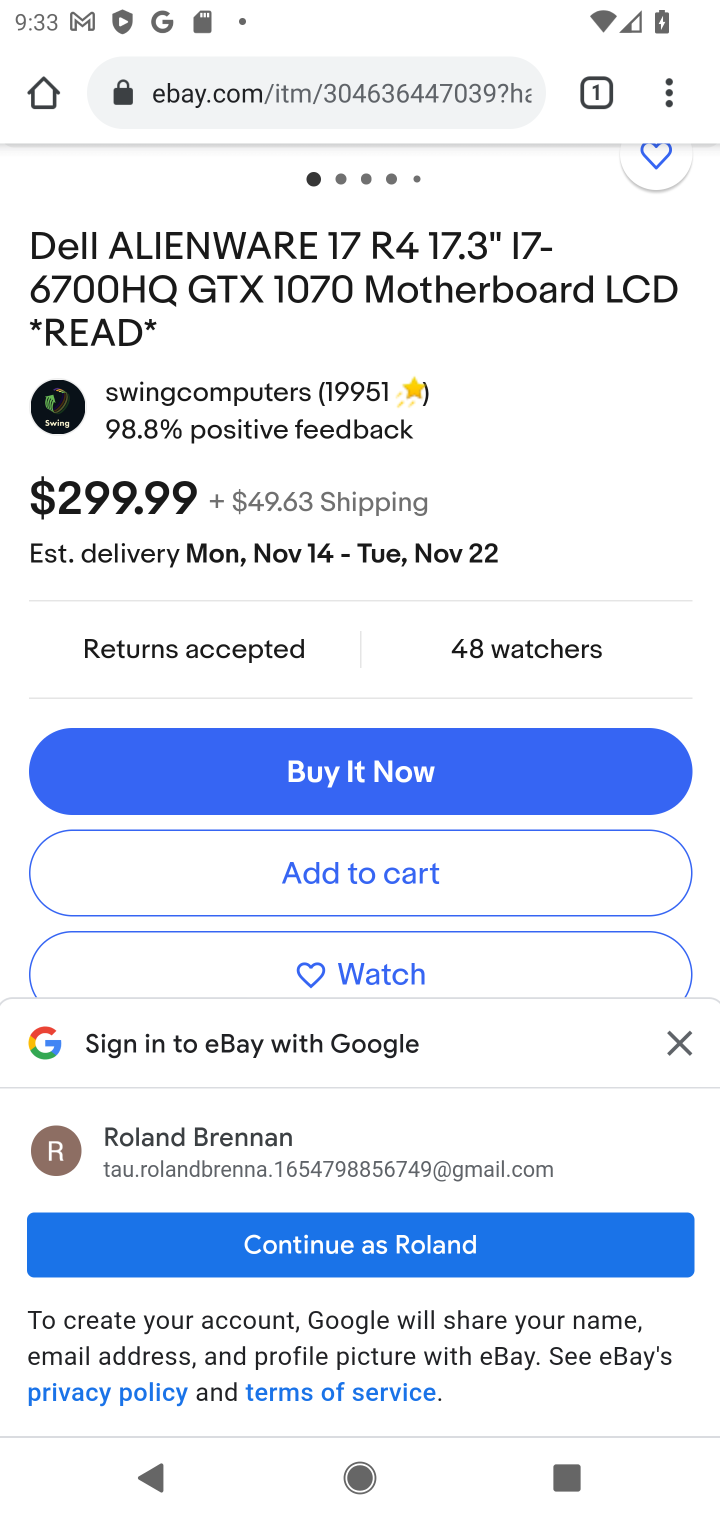
Step 25: click (699, 1033)
Your task to perform on an android device: Empty the shopping cart on ebay. Add dell alienware to the cart on ebay, then select checkout. Image 26: 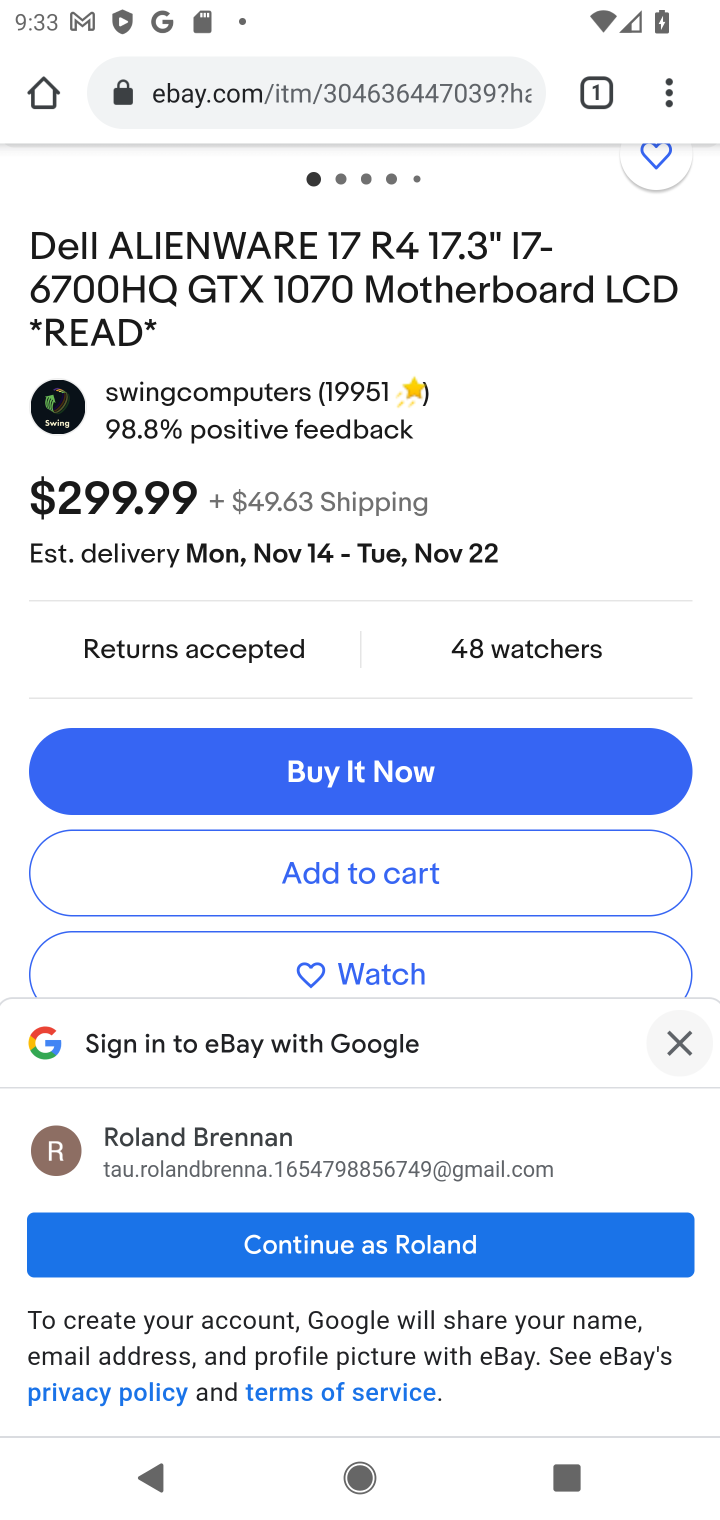
Step 26: click (445, 894)
Your task to perform on an android device: Empty the shopping cart on ebay. Add dell alienware to the cart on ebay, then select checkout. Image 27: 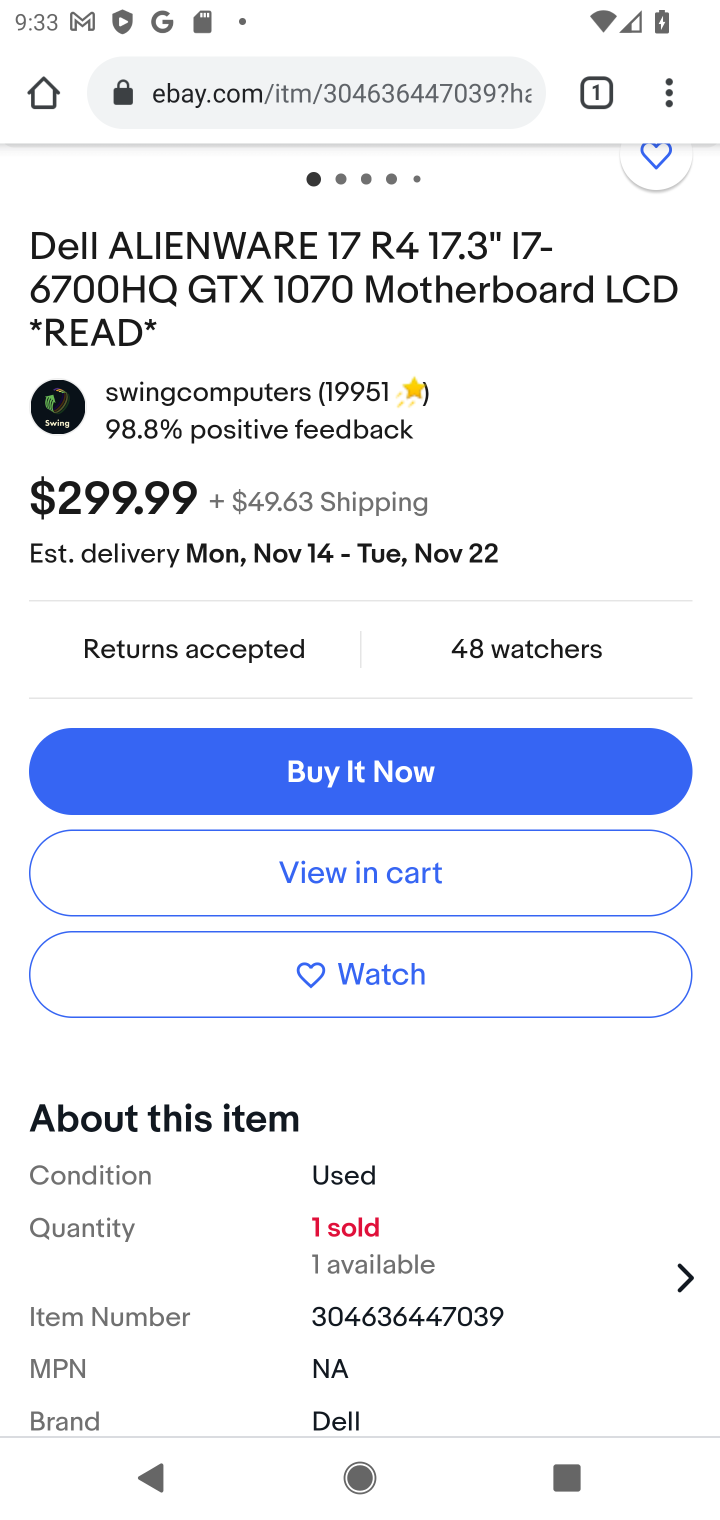
Step 27: click (282, 889)
Your task to perform on an android device: Empty the shopping cart on ebay. Add dell alienware to the cart on ebay, then select checkout. Image 28: 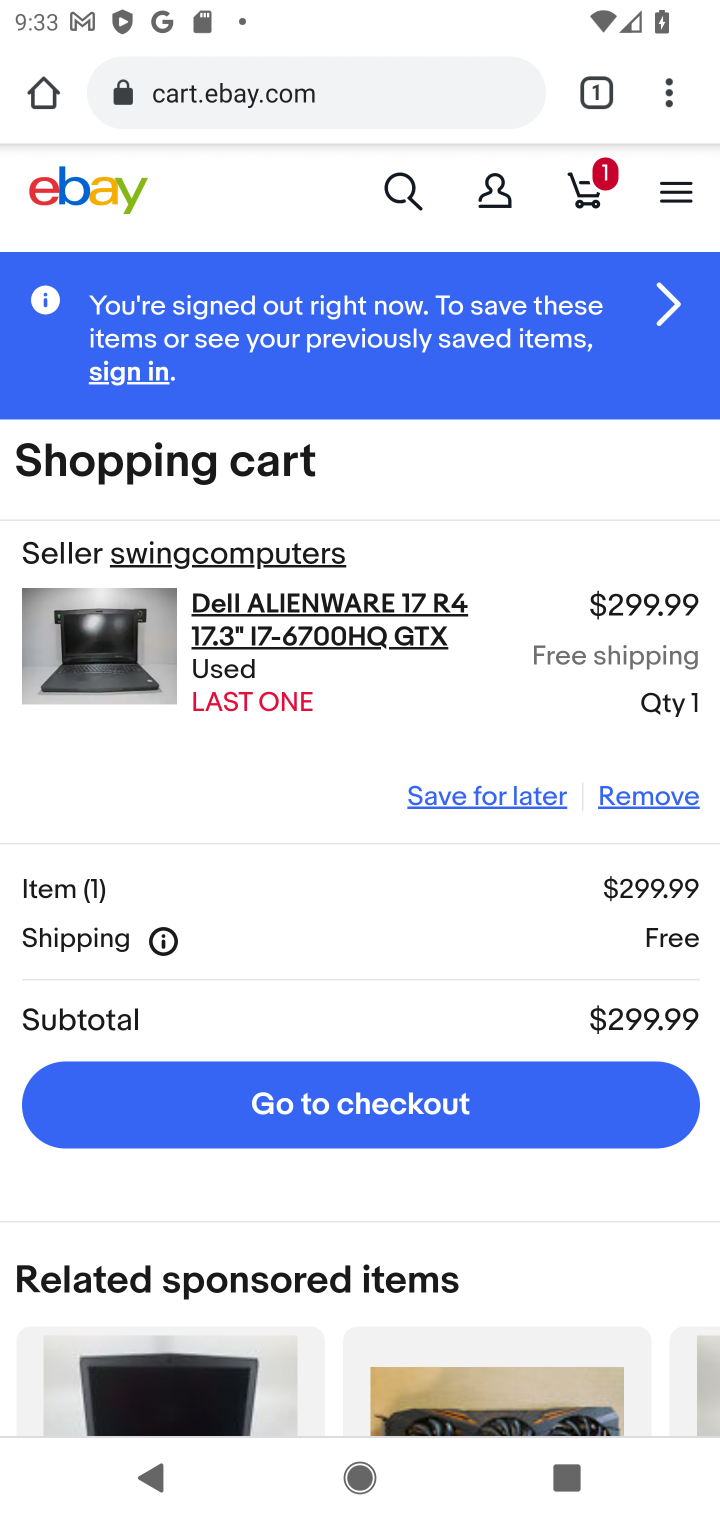
Step 28: click (328, 1096)
Your task to perform on an android device: Empty the shopping cart on ebay. Add dell alienware to the cart on ebay, then select checkout. Image 29: 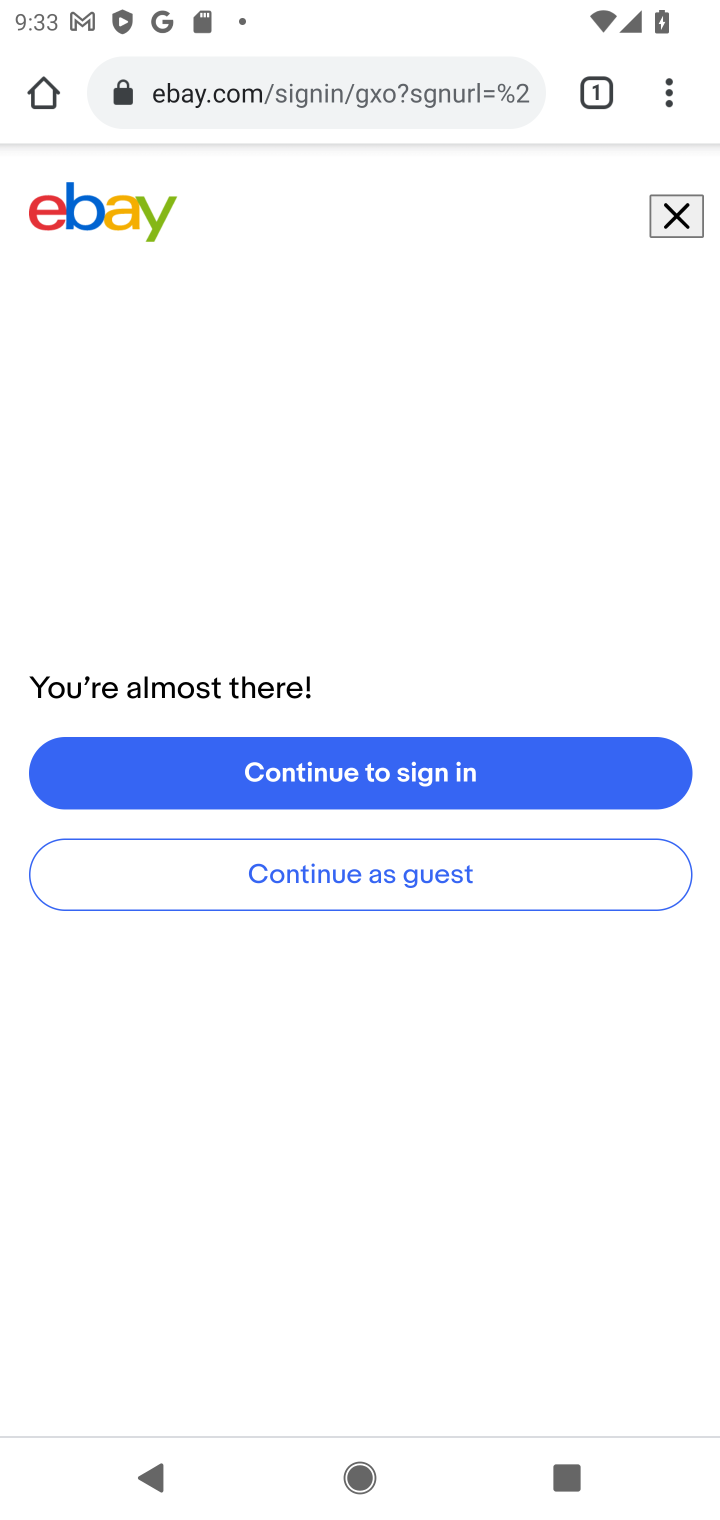
Step 29: click (349, 890)
Your task to perform on an android device: Empty the shopping cart on ebay. Add dell alienware to the cart on ebay, then select checkout. Image 30: 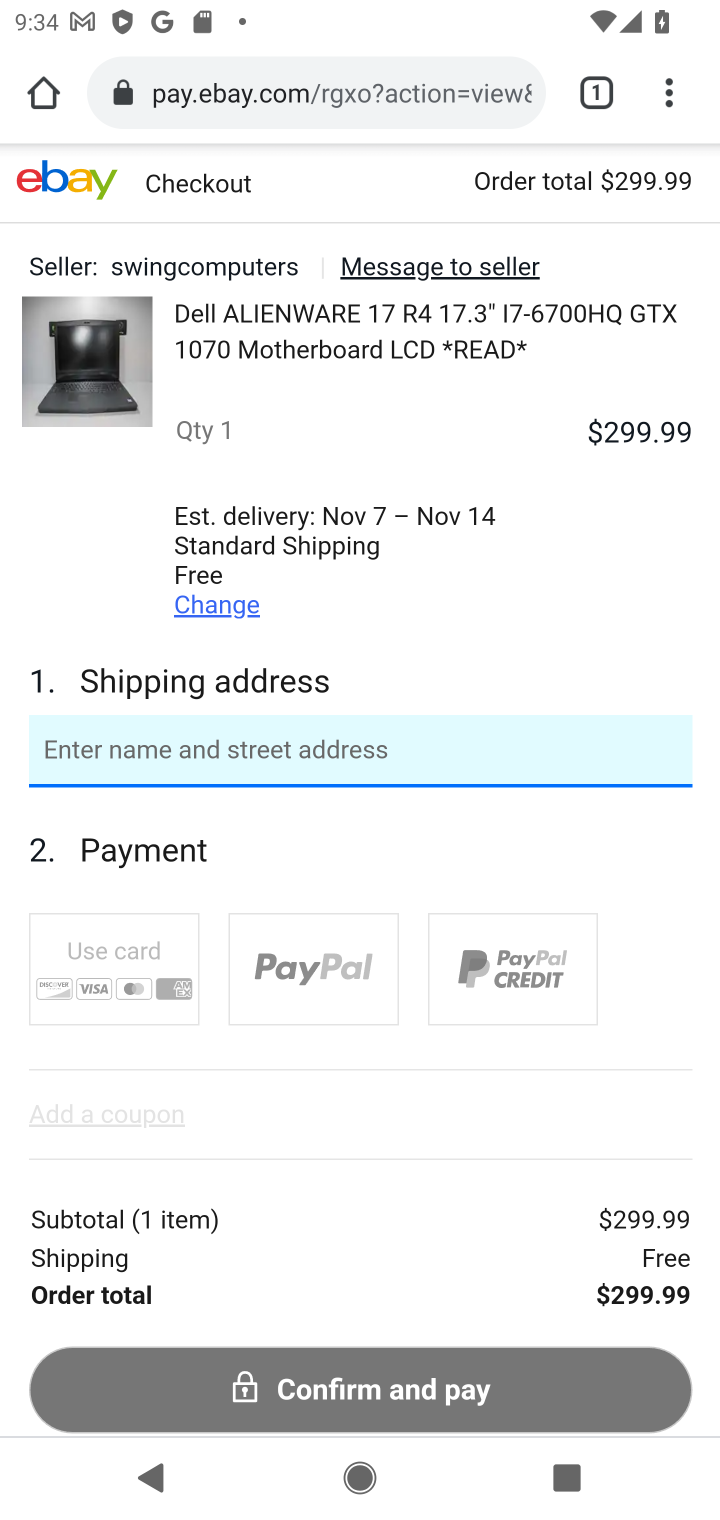
Step 30: task complete